Your task to perform on an android device: open a bookmark in the chrome app Image 0: 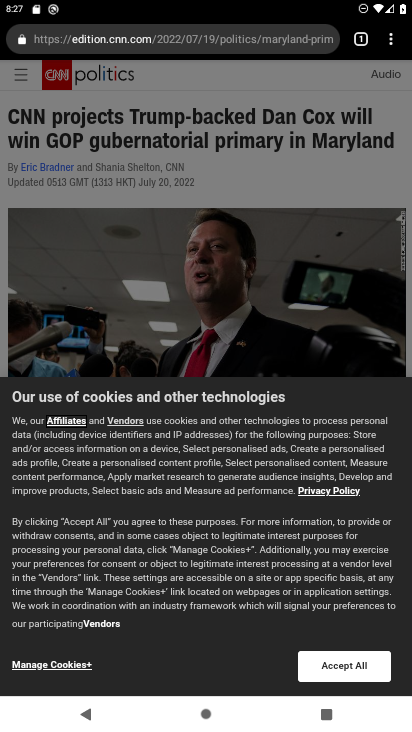
Step 0: click (387, 31)
Your task to perform on an android device: open a bookmark in the chrome app Image 1: 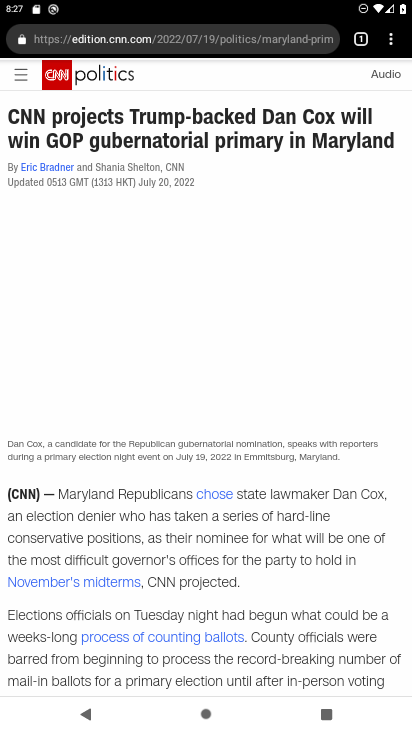
Step 1: click (393, 38)
Your task to perform on an android device: open a bookmark in the chrome app Image 2: 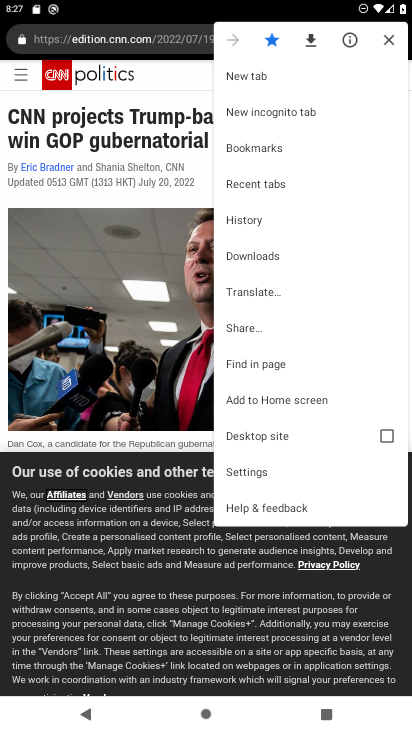
Step 2: click (261, 150)
Your task to perform on an android device: open a bookmark in the chrome app Image 3: 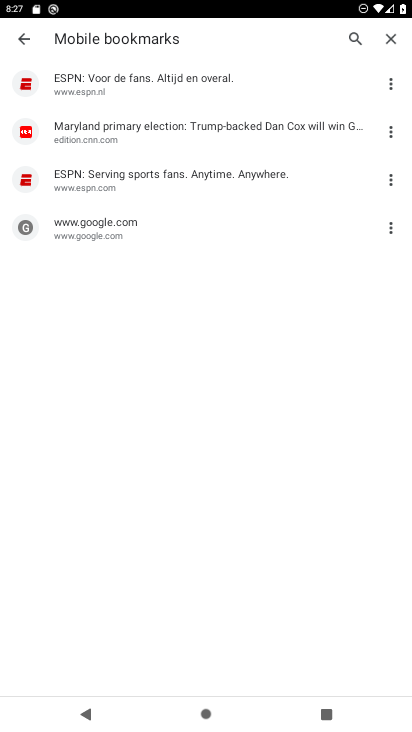
Step 3: click (112, 80)
Your task to perform on an android device: open a bookmark in the chrome app Image 4: 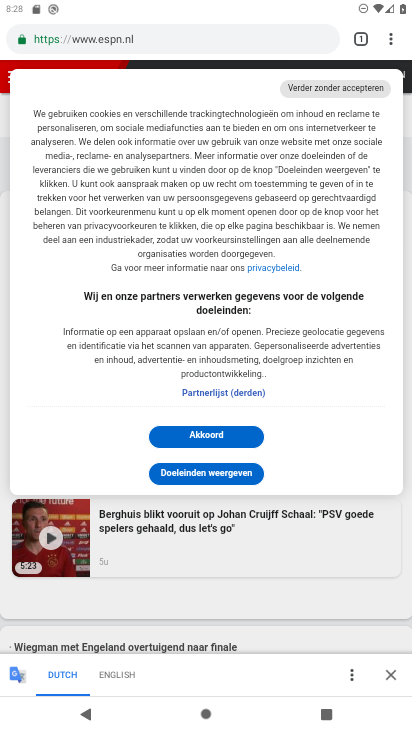
Step 4: task complete